Your task to perform on an android device: View the shopping cart on newegg.com. Search for "logitech g910" on newegg.com, select the first entry, add it to the cart, then select checkout. Image 0: 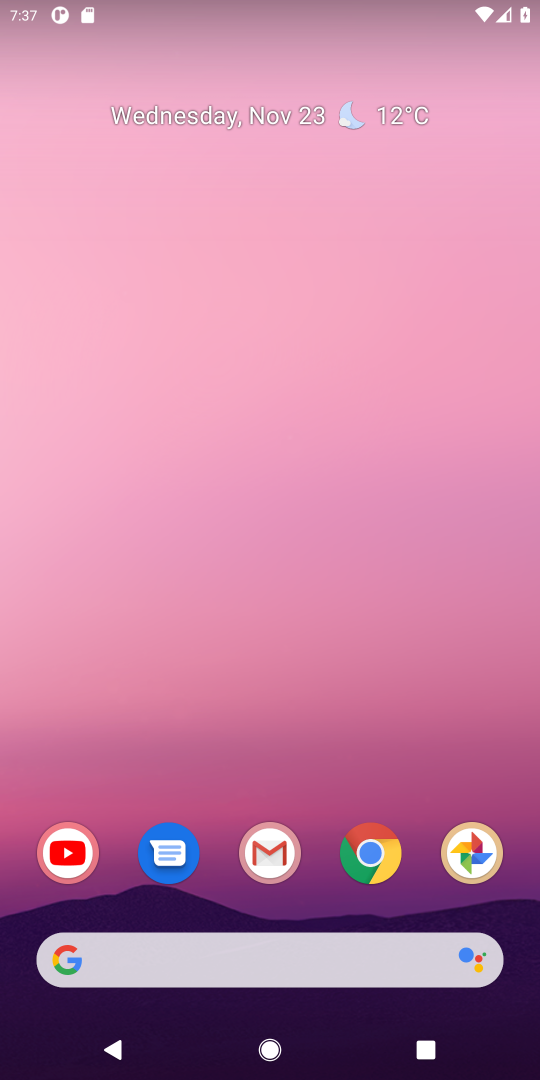
Step 0: click (362, 847)
Your task to perform on an android device: View the shopping cart on newegg.com. Search for "logitech g910" on newegg.com, select the first entry, add it to the cart, then select checkout. Image 1: 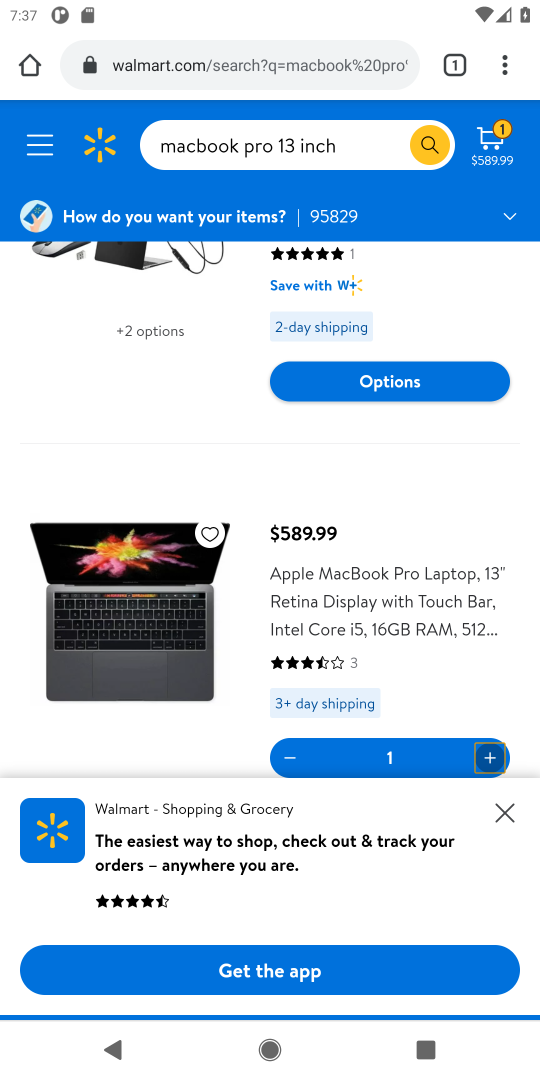
Step 1: click (222, 56)
Your task to perform on an android device: View the shopping cart on newegg.com. Search for "logitech g910" on newegg.com, select the first entry, add it to the cart, then select checkout. Image 2: 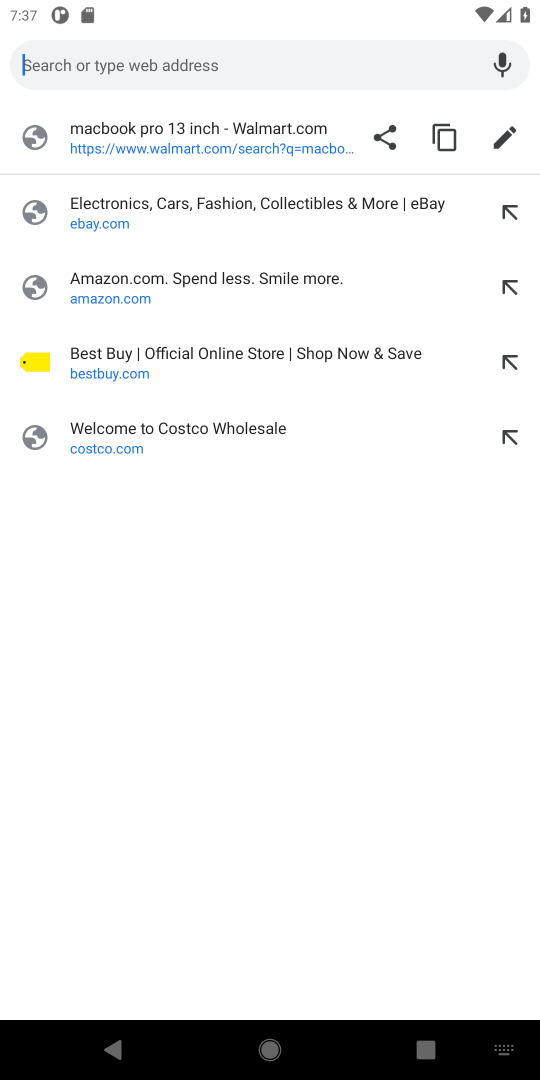
Step 2: type "newegg.com"
Your task to perform on an android device: View the shopping cart on newegg.com. Search for "logitech g910" on newegg.com, select the first entry, add it to the cart, then select checkout. Image 3: 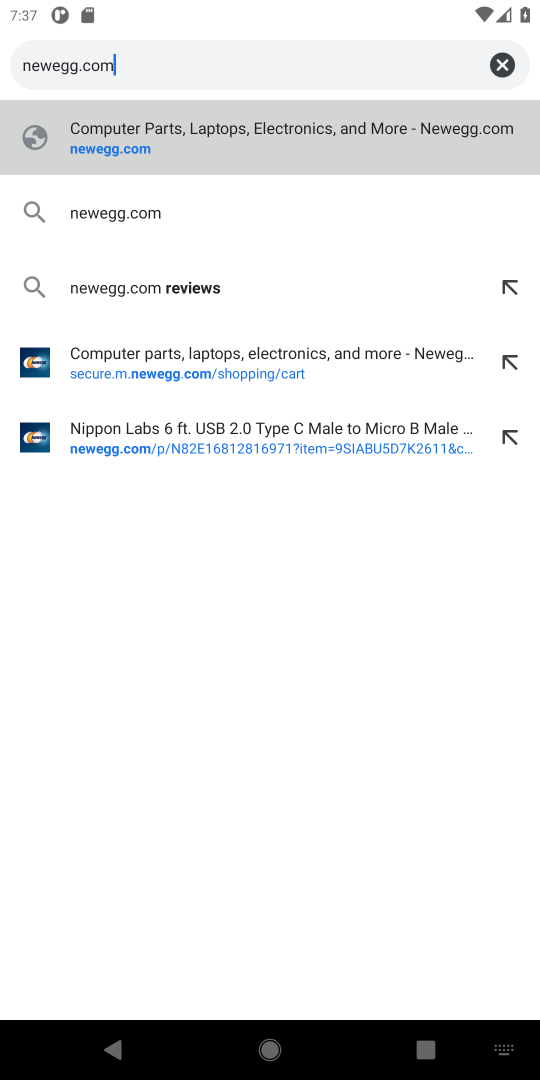
Step 3: click (73, 373)
Your task to perform on an android device: View the shopping cart on newegg.com. Search for "logitech g910" on newegg.com, select the first entry, add it to the cart, then select checkout. Image 4: 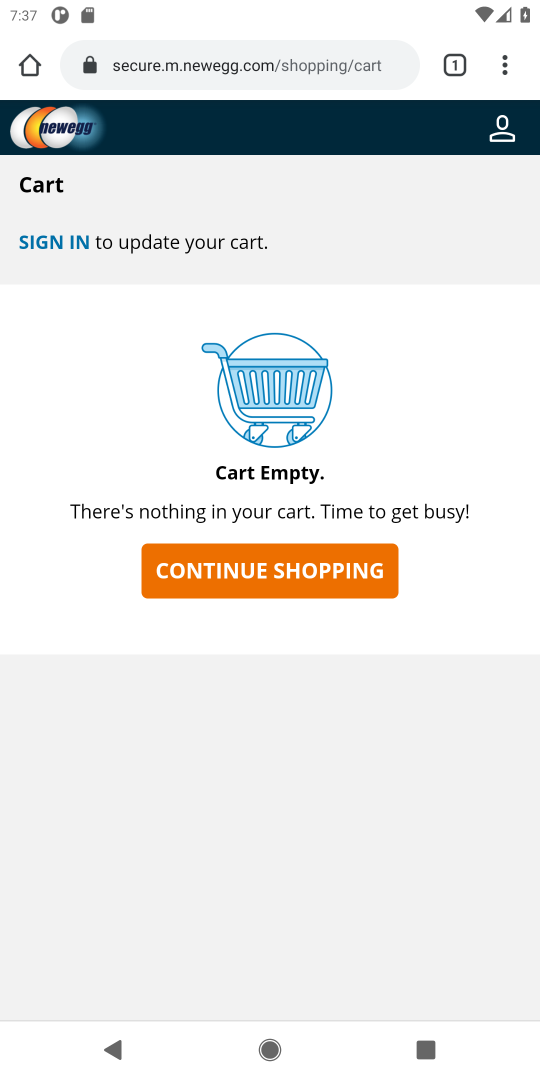
Step 4: click (273, 567)
Your task to perform on an android device: View the shopping cart on newegg.com. Search for "logitech g910" on newegg.com, select the first entry, add it to the cart, then select checkout. Image 5: 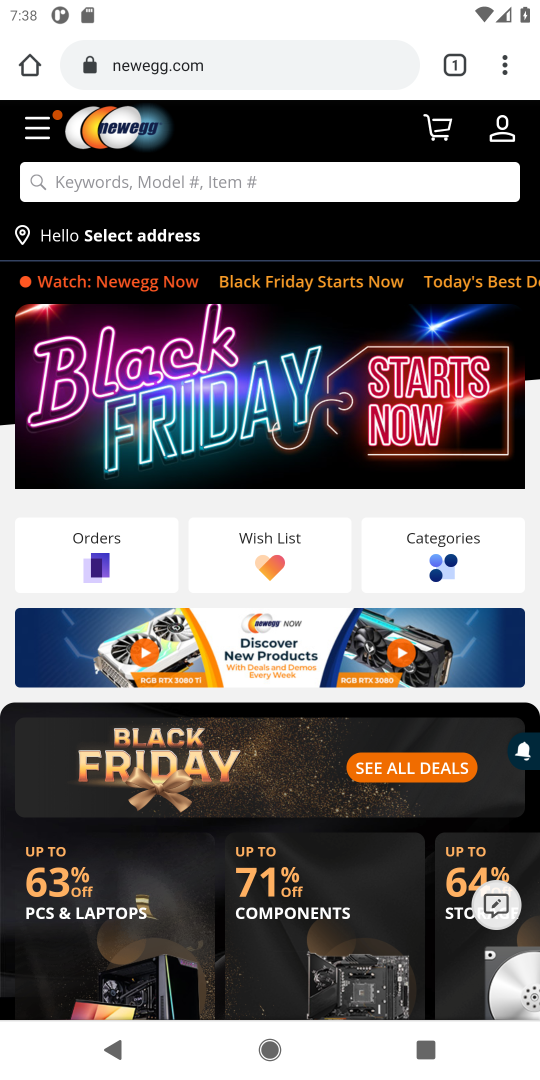
Step 5: click (118, 188)
Your task to perform on an android device: View the shopping cart on newegg.com. Search for "logitech g910" on newegg.com, select the first entry, add it to the cart, then select checkout. Image 6: 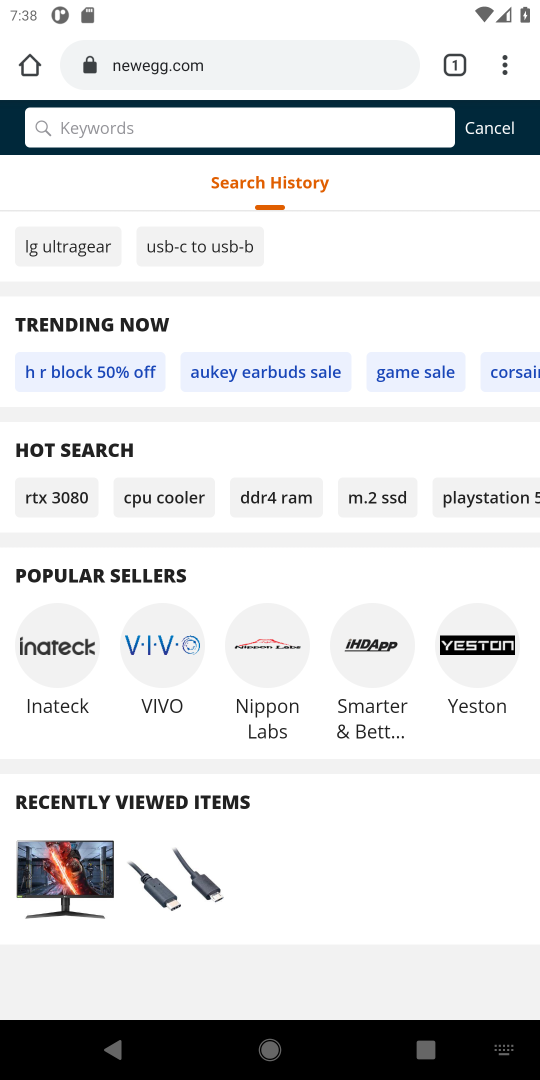
Step 6: type "logitech g910"
Your task to perform on an android device: View the shopping cart on newegg.com. Search for "logitech g910" on newegg.com, select the first entry, add it to the cart, then select checkout. Image 7: 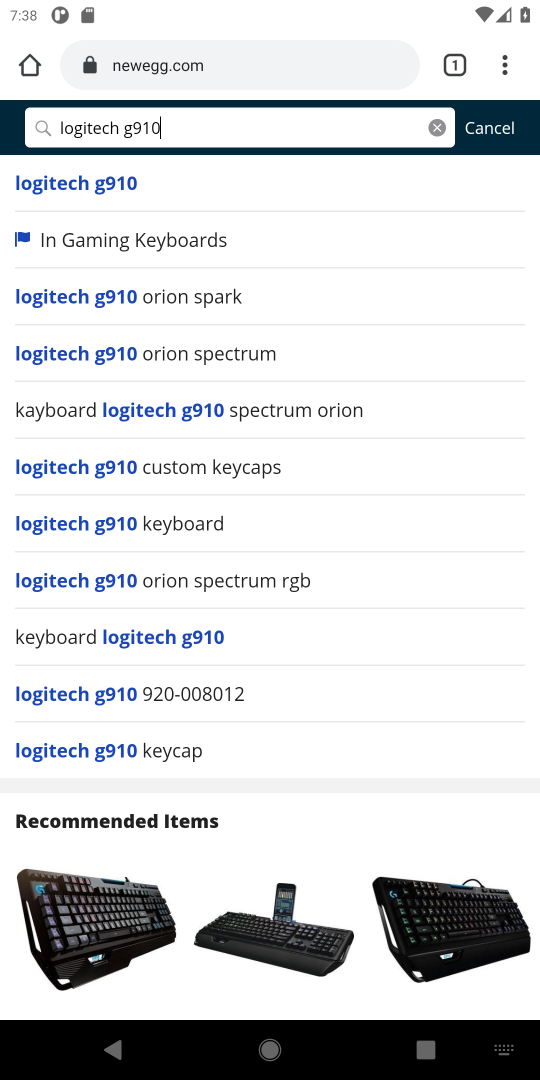
Step 7: click (50, 189)
Your task to perform on an android device: View the shopping cart on newegg.com. Search for "logitech g910" on newegg.com, select the first entry, add it to the cart, then select checkout. Image 8: 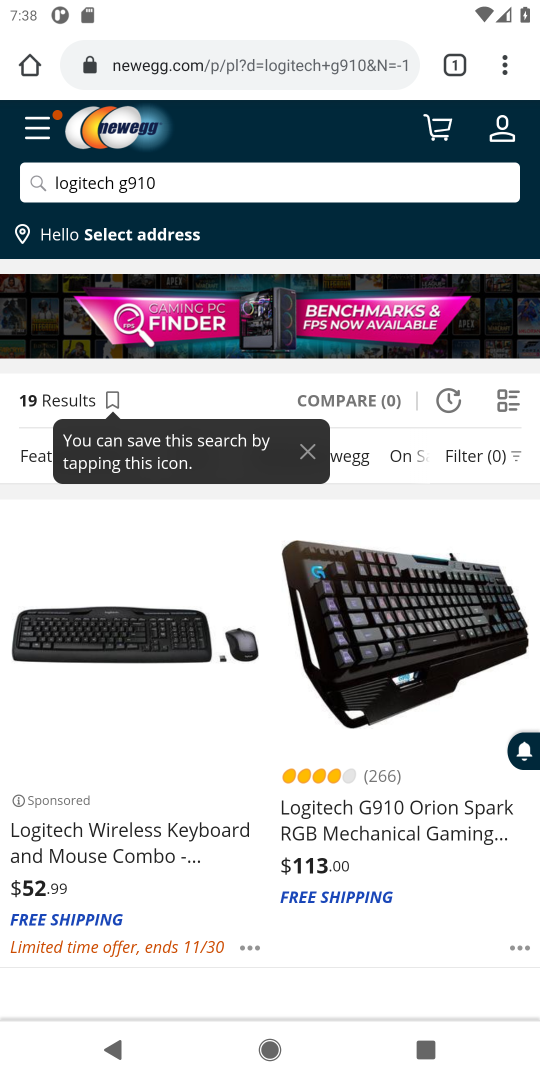
Step 8: drag from (172, 781) to (157, 567)
Your task to perform on an android device: View the shopping cart on newegg.com. Search for "logitech g910" on newegg.com, select the first entry, add it to the cart, then select checkout. Image 9: 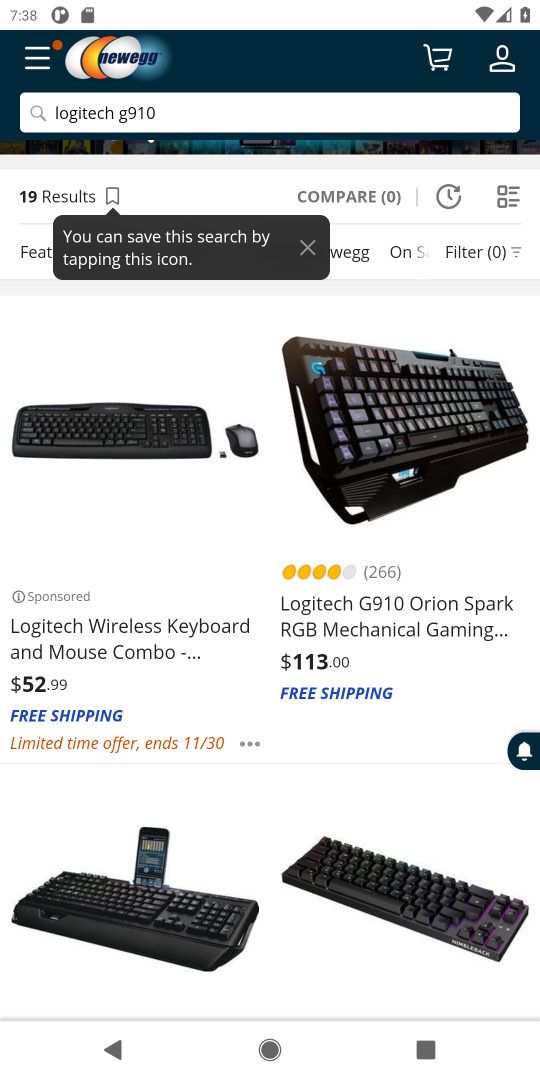
Step 9: click (73, 528)
Your task to perform on an android device: View the shopping cart on newegg.com. Search for "logitech g910" on newegg.com, select the first entry, add it to the cart, then select checkout. Image 10: 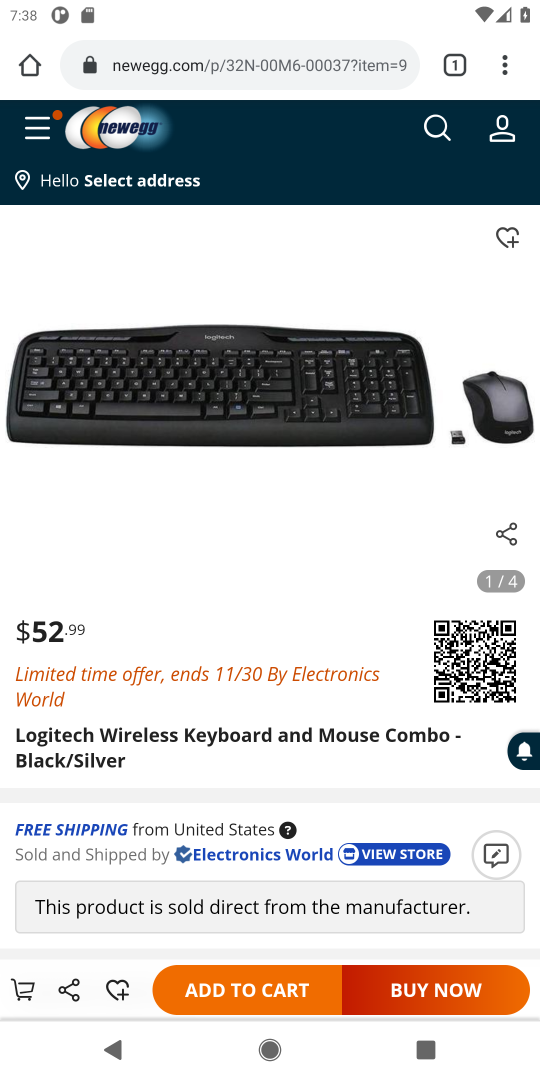
Step 10: task complete